Your task to perform on an android device: Show the shopping cart on target. Image 0: 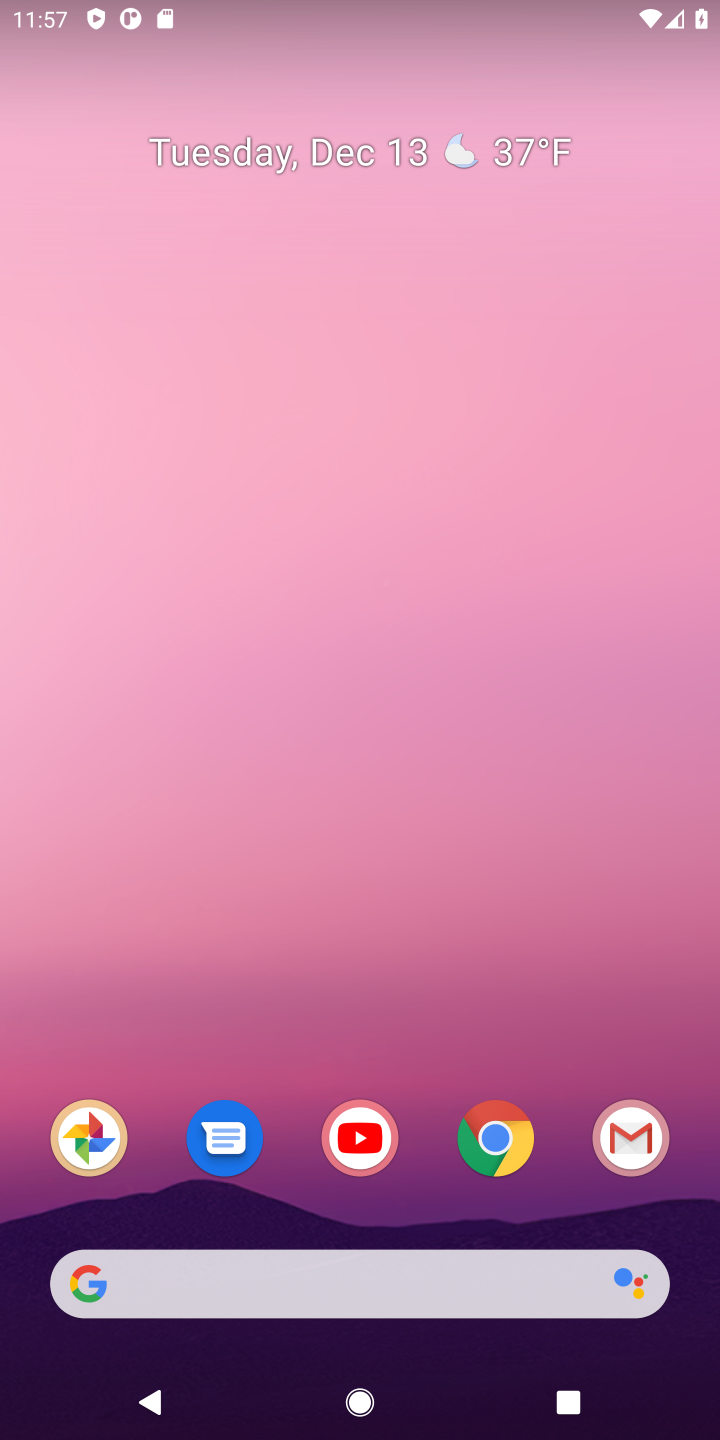
Step 0: click (509, 1117)
Your task to perform on an android device: Show the shopping cart on target. Image 1: 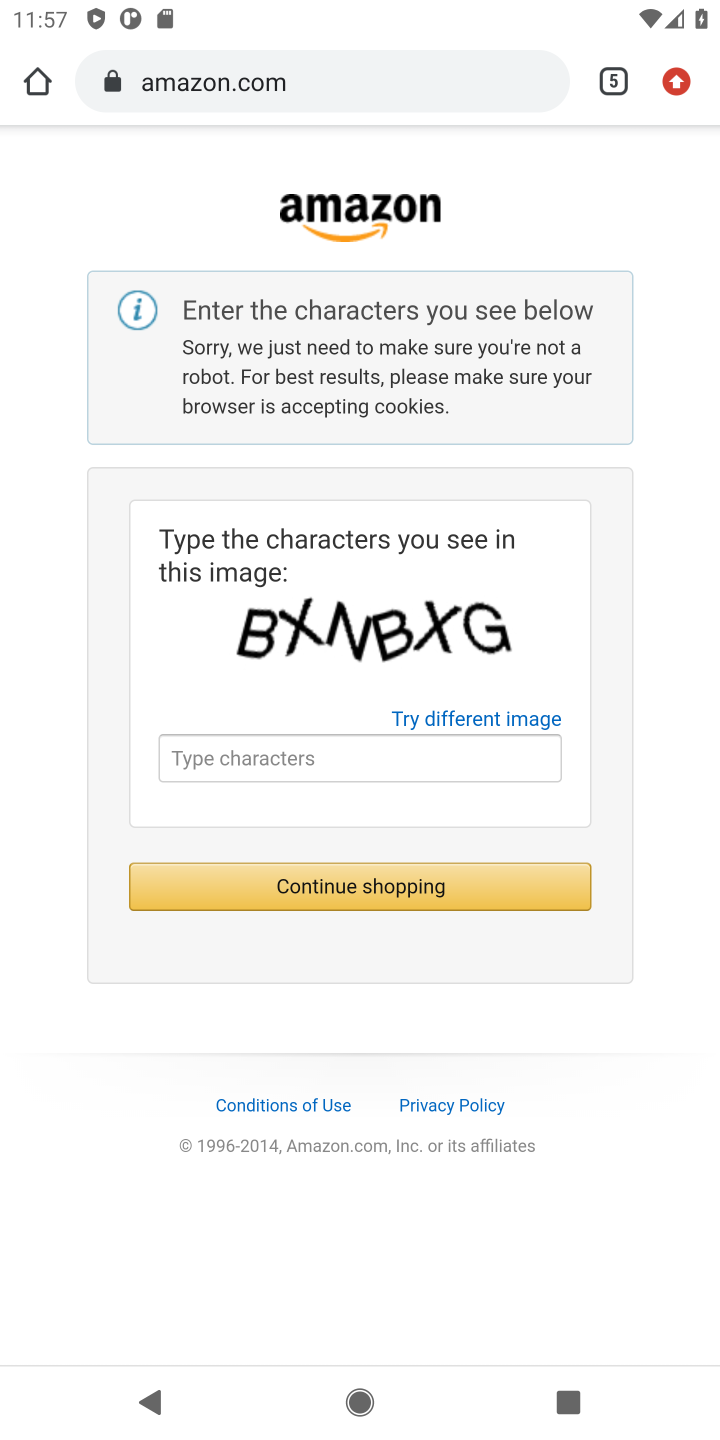
Step 1: click (612, 70)
Your task to perform on an android device: Show the shopping cart on target. Image 2: 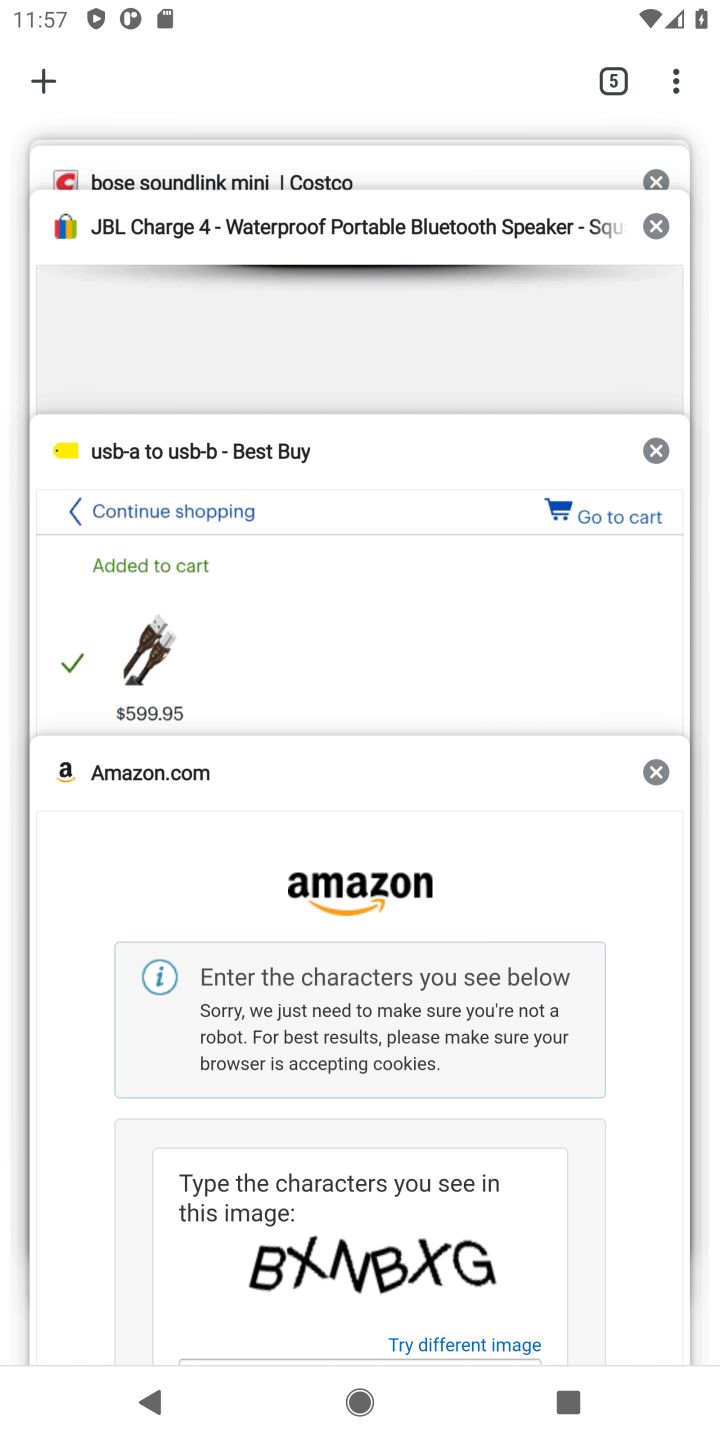
Step 2: drag from (214, 229) to (17, 230)
Your task to perform on an android device: Show the shopping cart on target. Image 3: 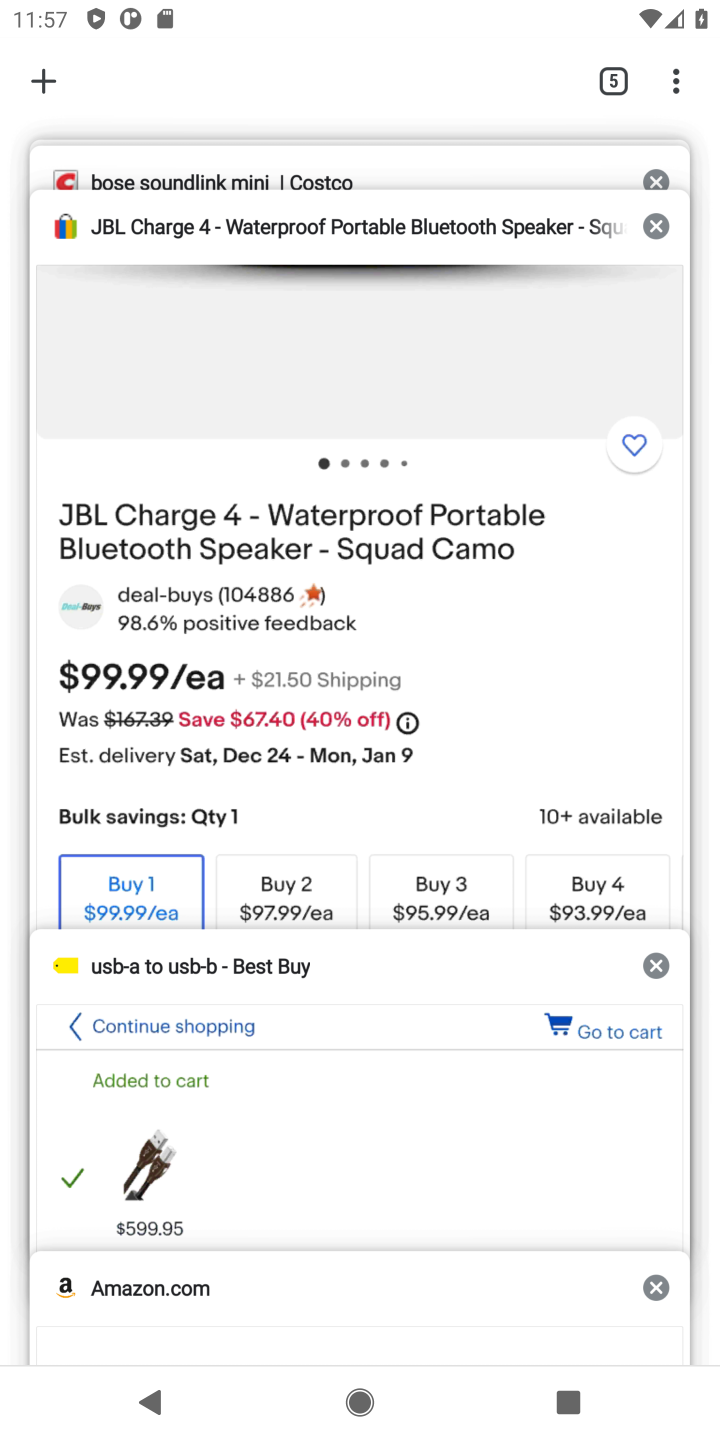
Step 3: drag from (148, 147) to (99, 284)
Your task to perform on an android device: Show the shopping cart on target. Image 4: 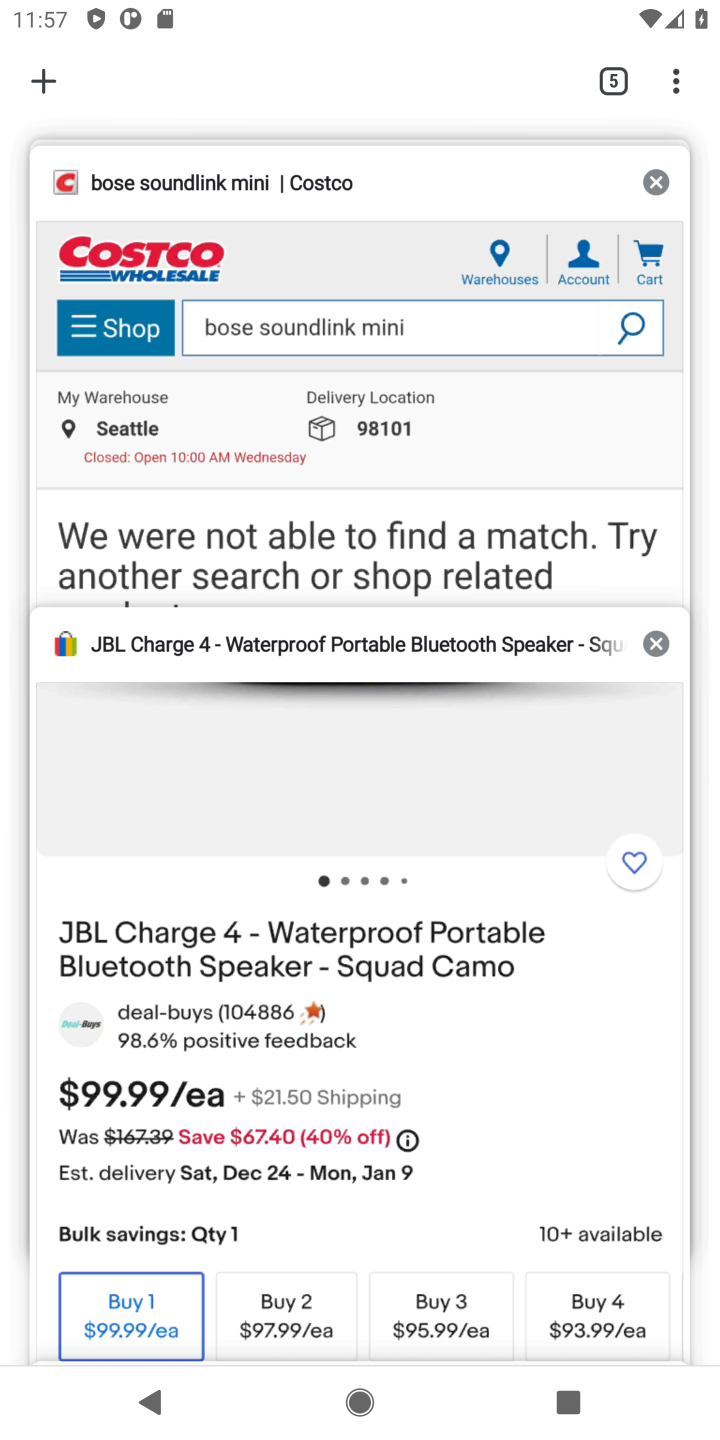
Step 4: click (99, 284)
Your task to perform on an android device: Show the shopping cart on target. Image 5: 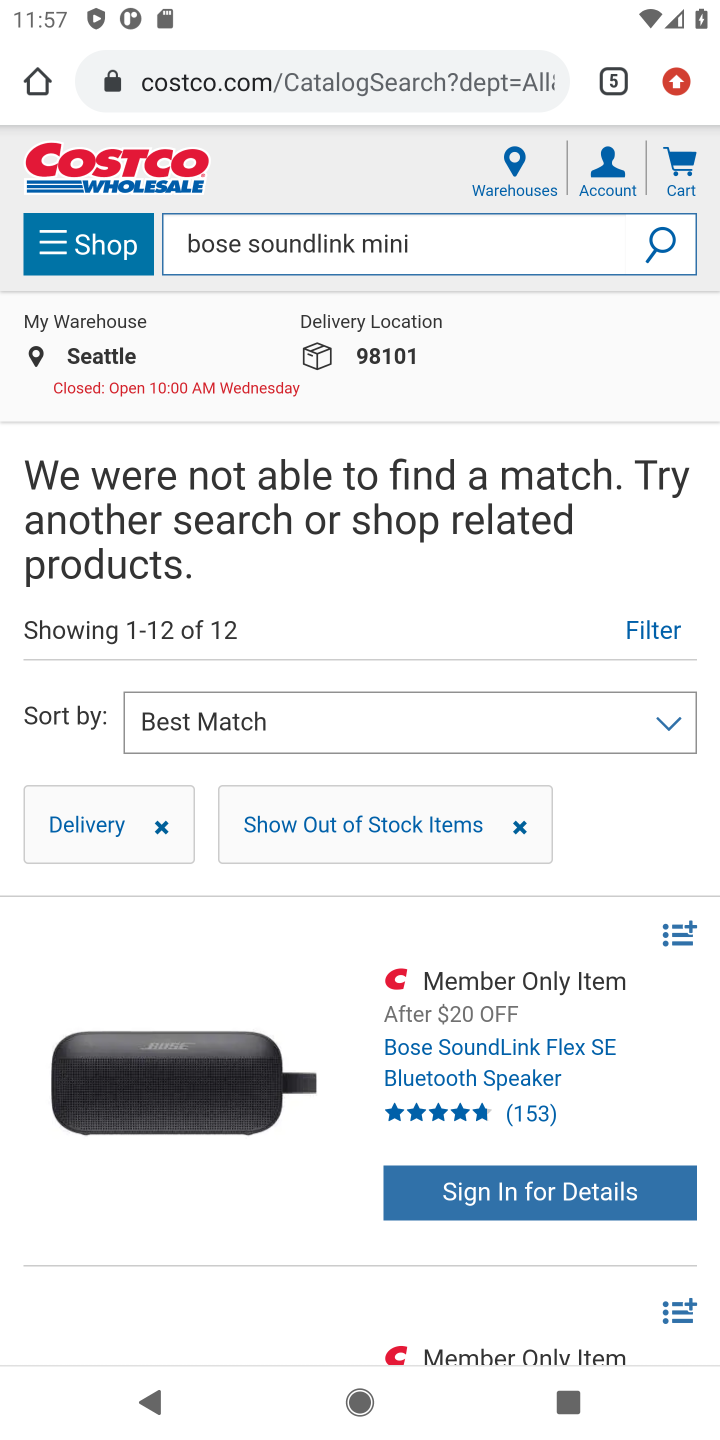
Step 5: drag from (130, 242) to (112, 304)
Your task to perform on an android device: Show the shopping cart on target. Image 6: 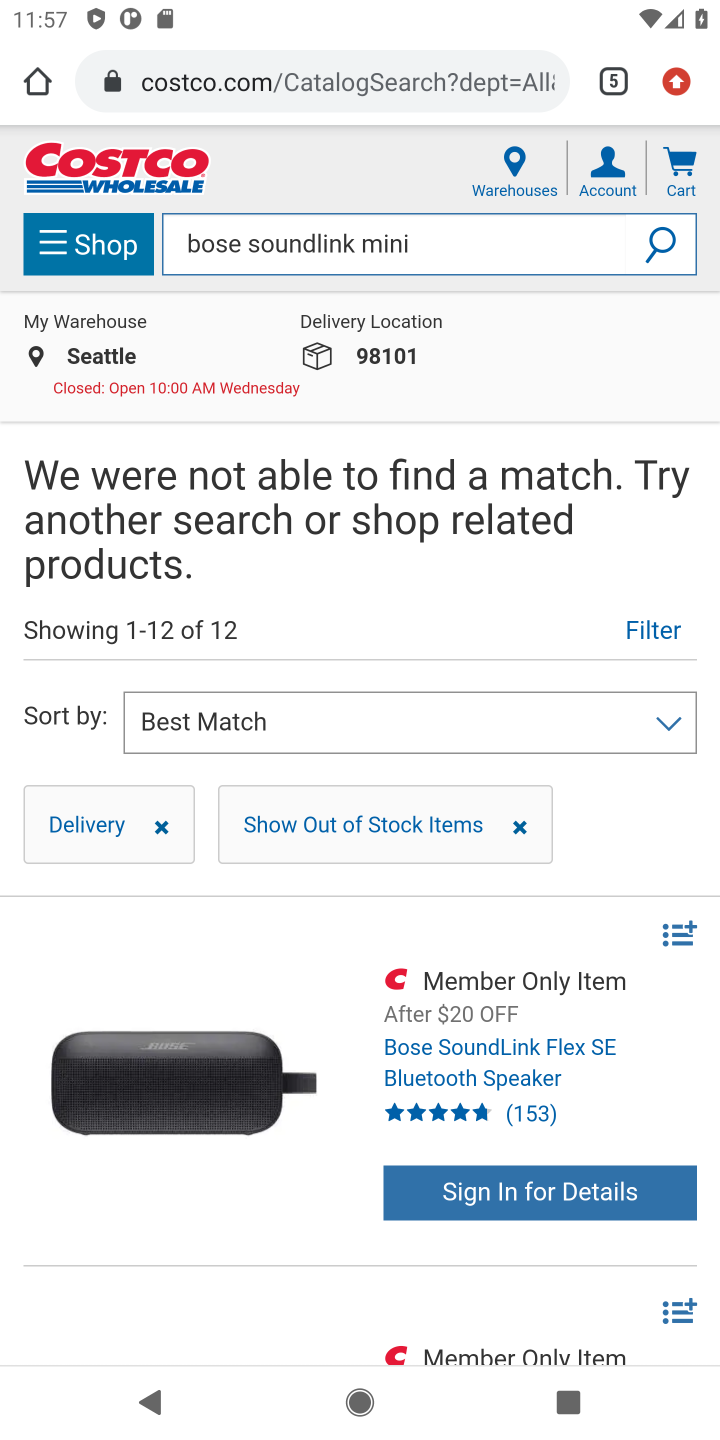
Step 6: click (618, 75)
Your task to perform on an android device: Show the shopping cart on target. Image 7: 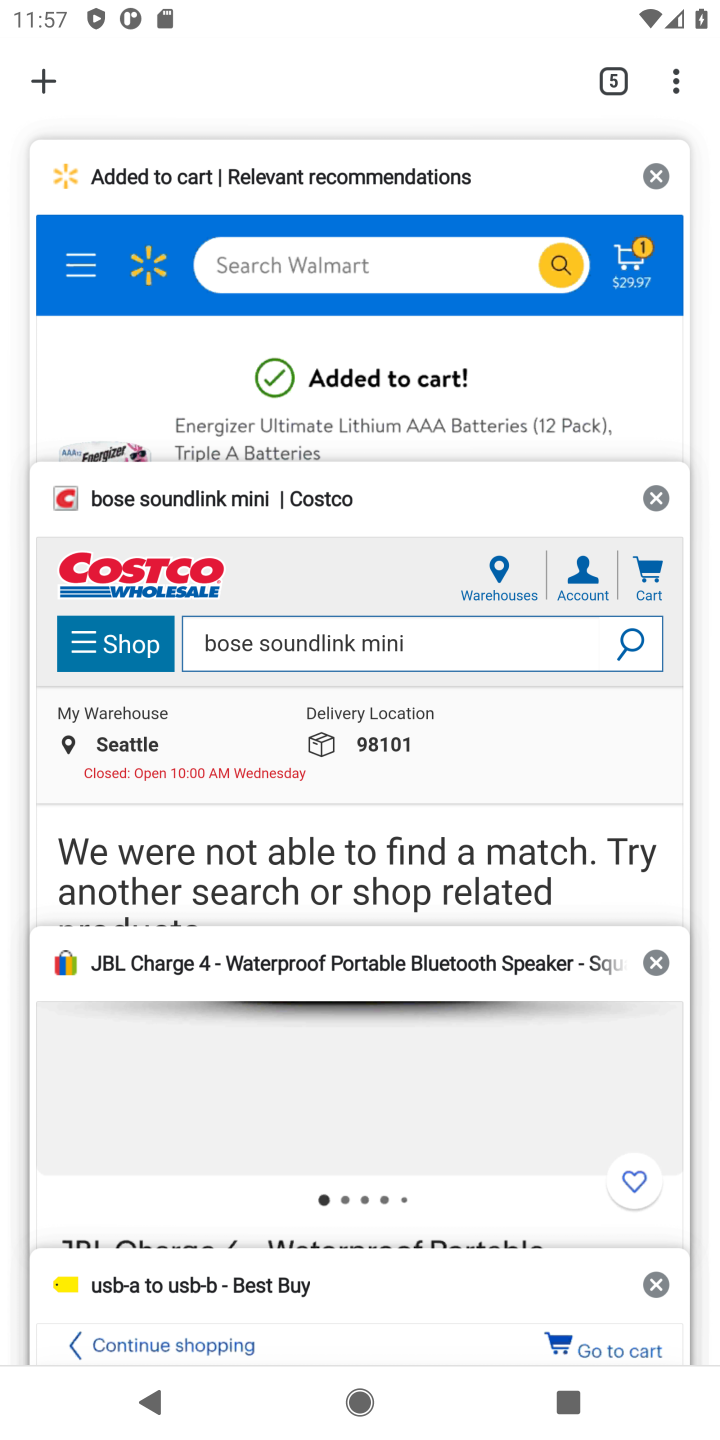
Step 7: click (56, 72)
Your task to perform on an android device: Show the shopping cart on target. Image 8: 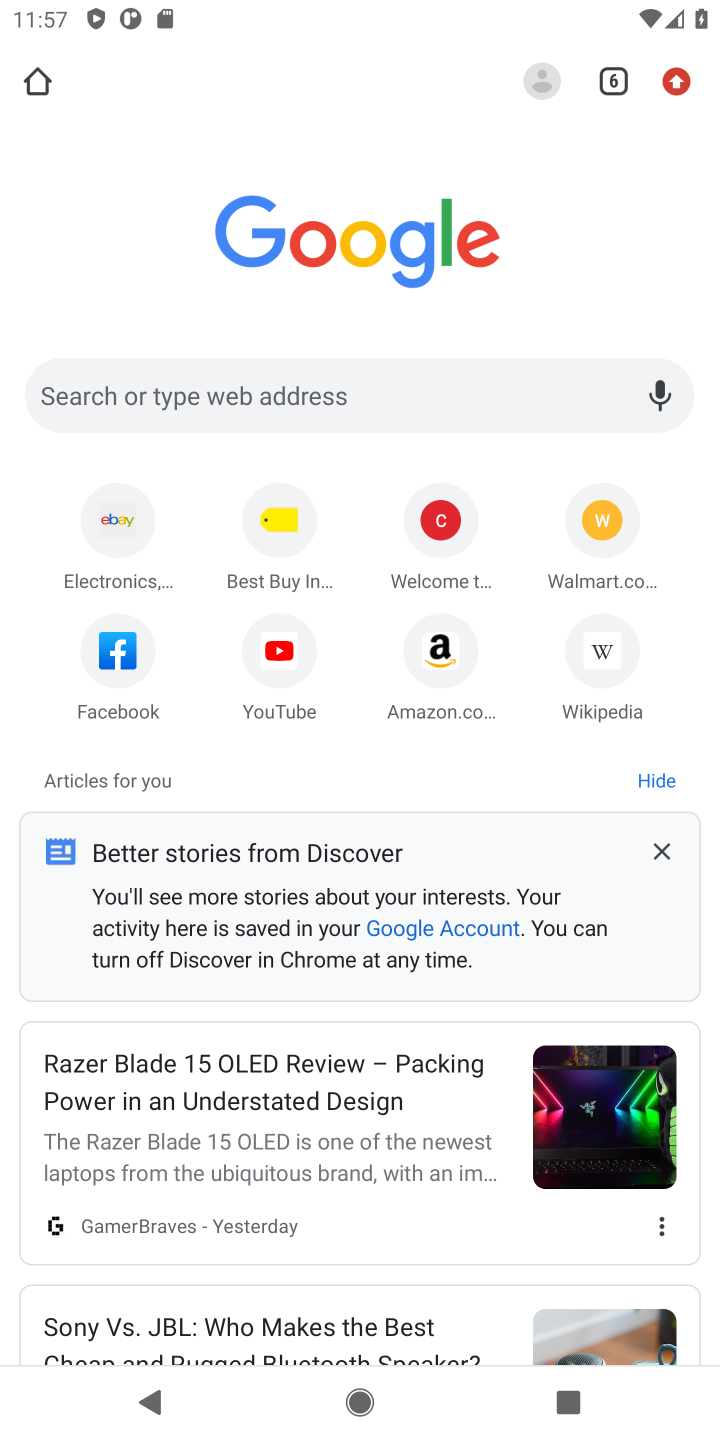
Step 8: click (205, 380)
Your task to perform on an android device: Show the shopping cart on target. Image 9: 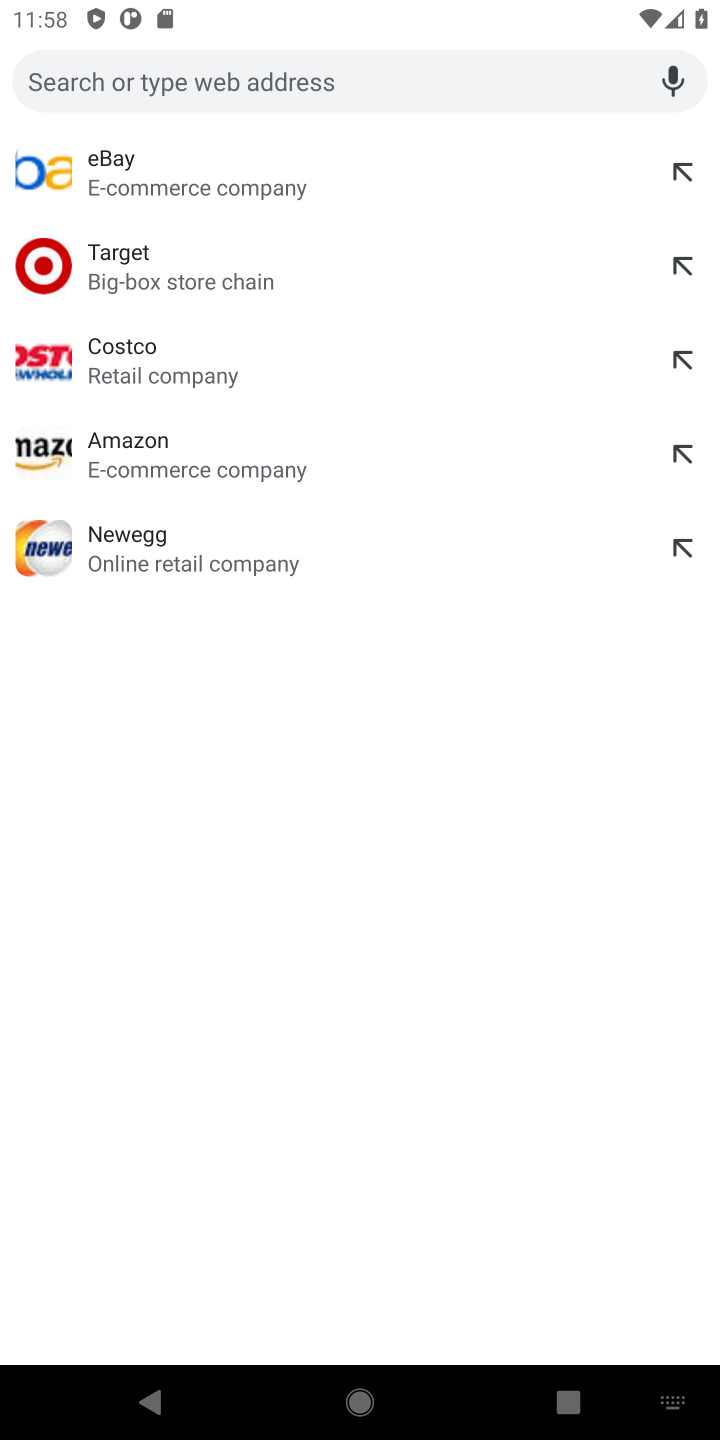
Step 9: click (140, 258)
Your task to perform on an android device: Show the shopping cart on target. Image 10: 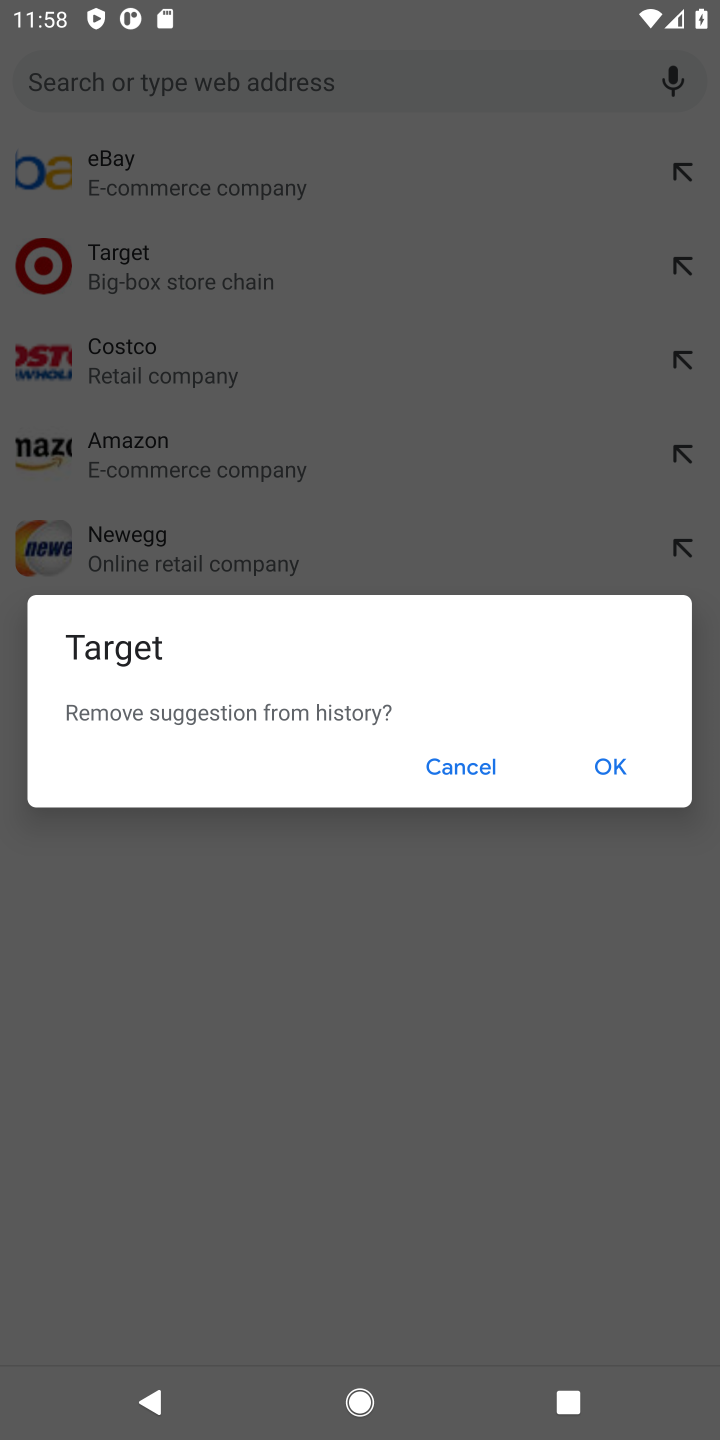
Step 10: click (611, 770)
Your task to perform on an android device: Show the shopping cart on target. Image 11: 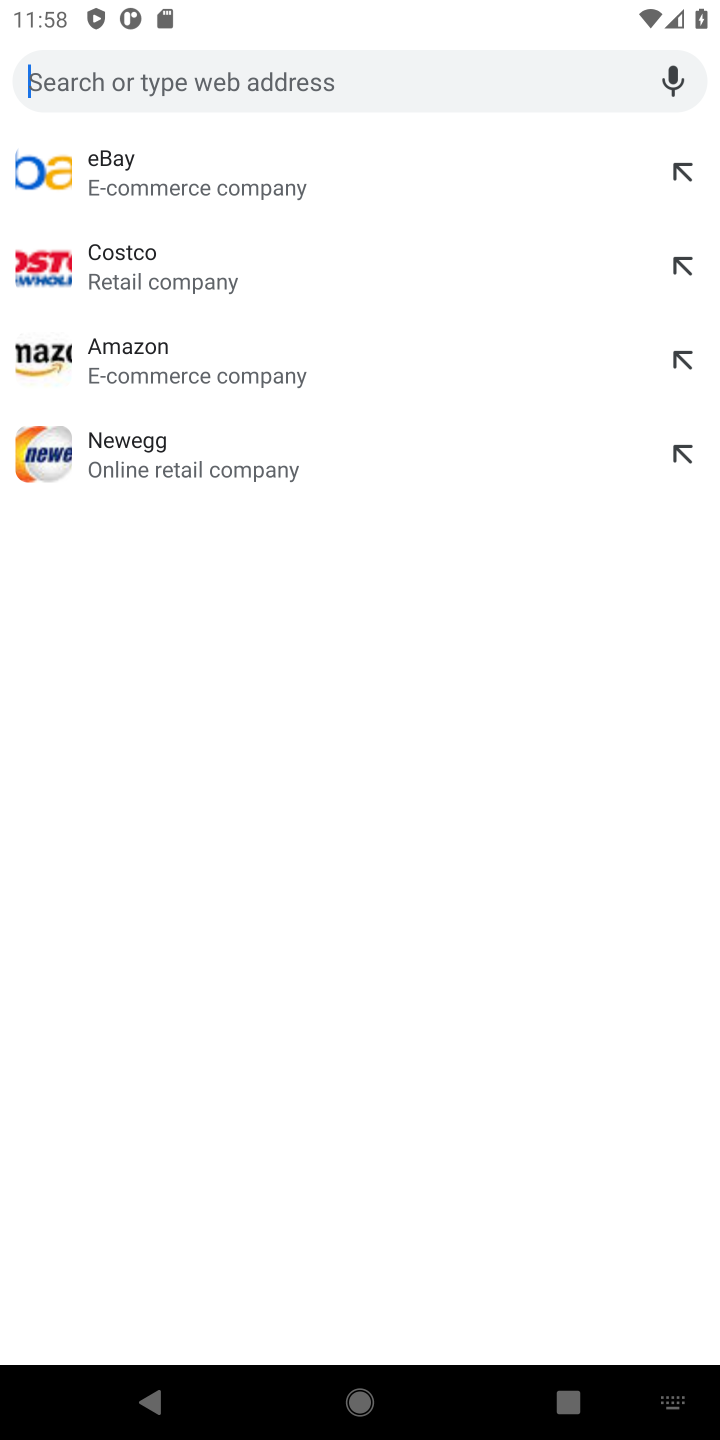
Step 11: type "target"
Your task to perform on an android device: Show the shopping cart on target. Image 12: 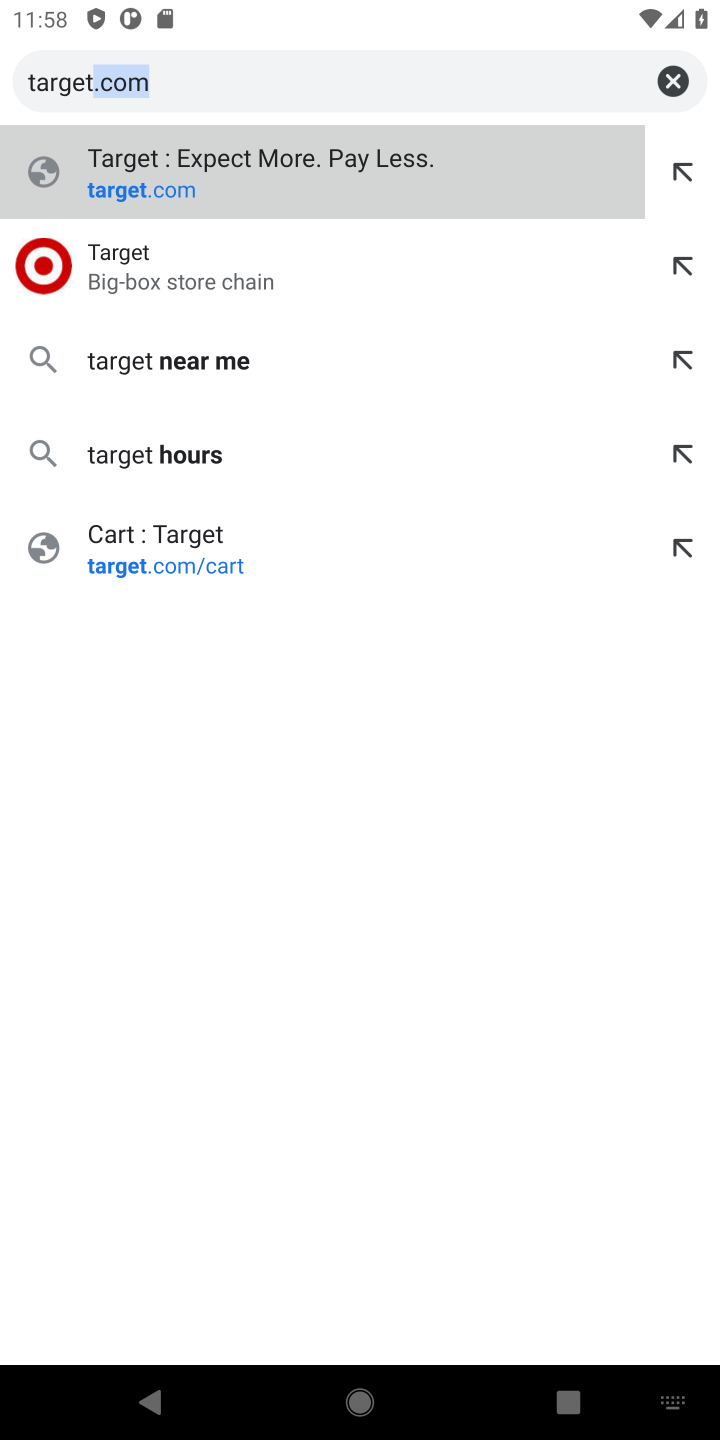
Step 12: click (203, 176)
Your task to perform on an android device: Show the shopping cart on target. Image 13: 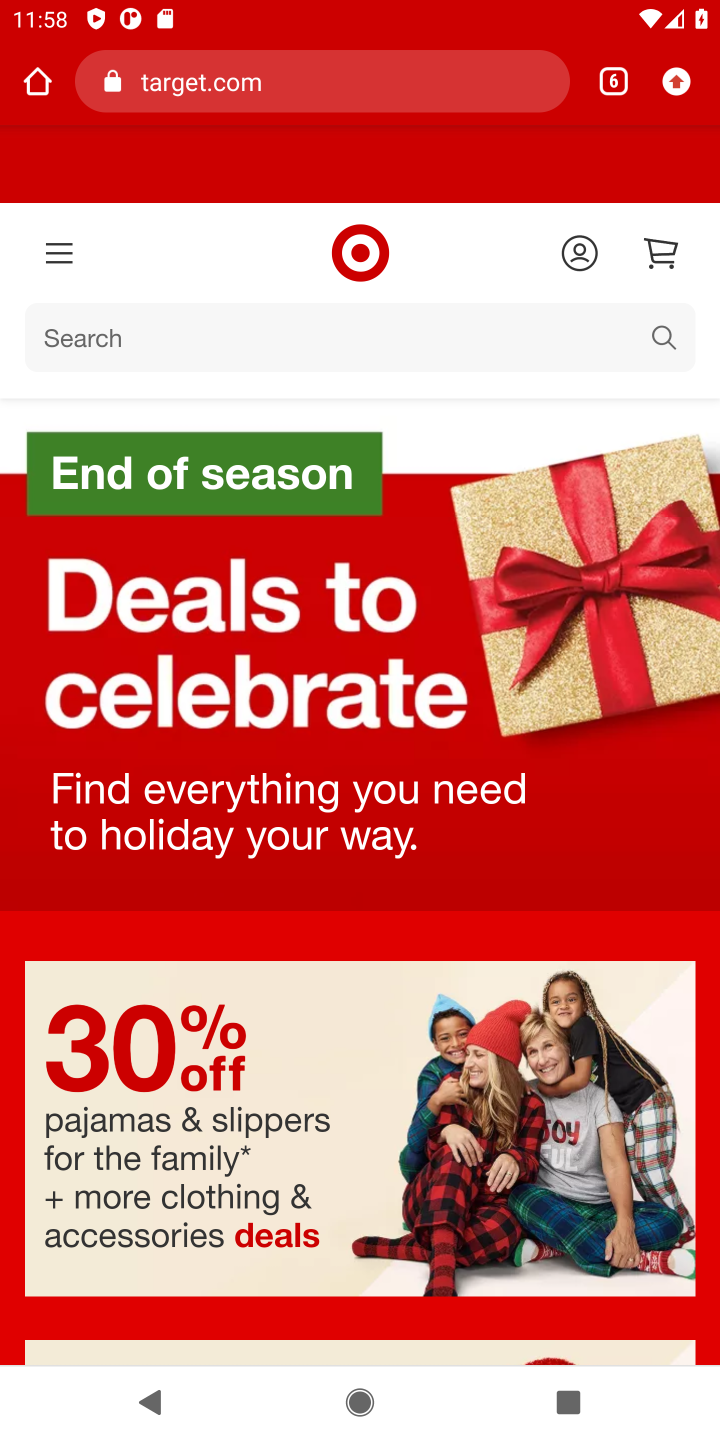
Step 13: click (671, 251)
Your task to perform on an android device: Show the shopping cart on target. Image 14: 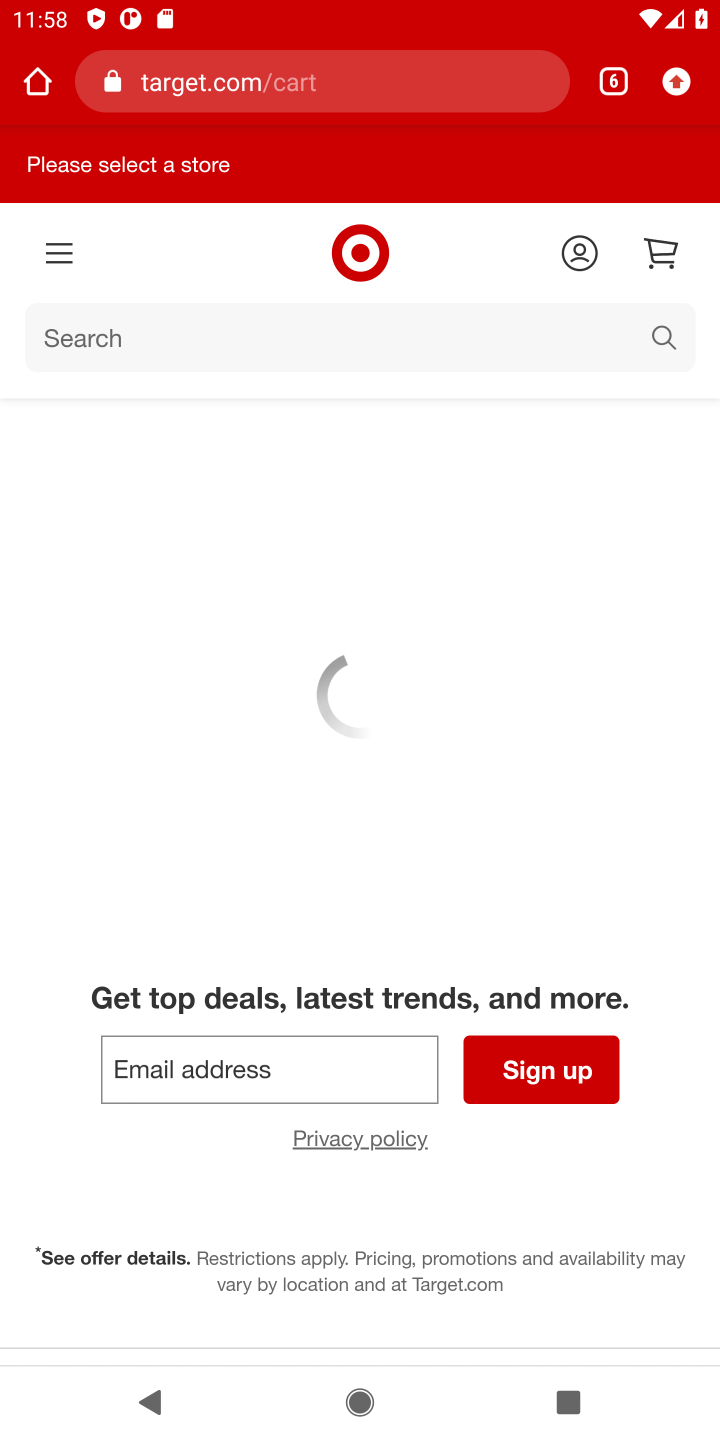
Step 14: task complete